Your task to perform on an android device: turn pop-ups off in chrome Image 0: 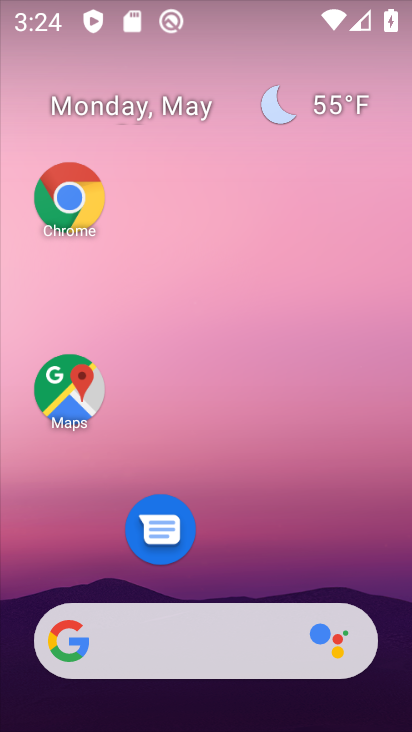
Step 0: click (83, 570)
Your task to perform on an android device: turn pop-ups off in chrome Image 1: 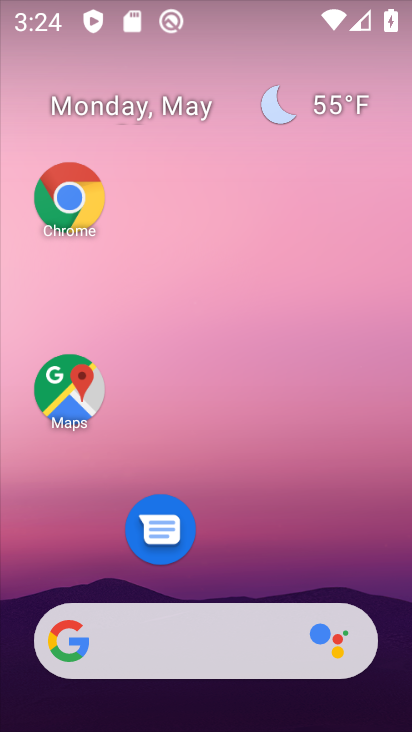
Step 1: drag from (345, 547) to (378, 149)
Your task to perform on an android device: turn pop-ups off in chrome Image 2: 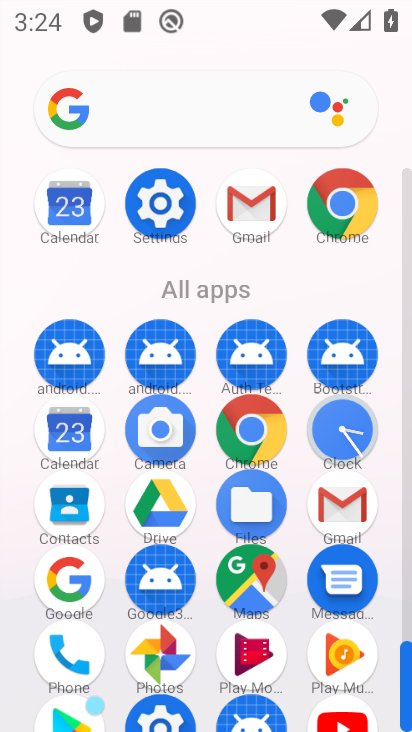
Step 2: click (362, 211)
Your task to perform on an android device: turn pop-ups off in chrome Image 3: 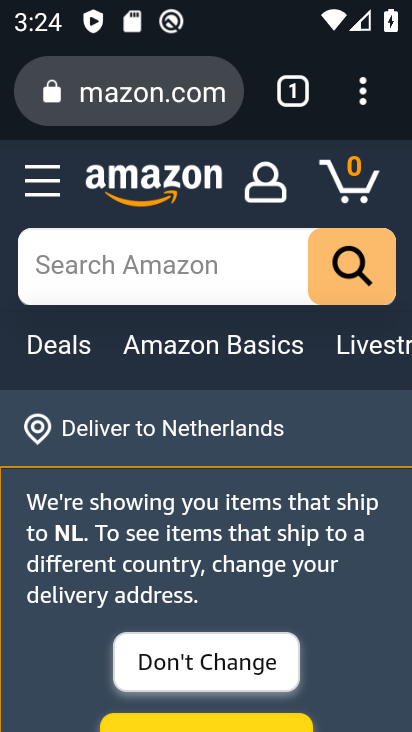
Step 3: click (366, 104)
Your task to perform on an android device: turn pop-ups off in chrome Image 4: 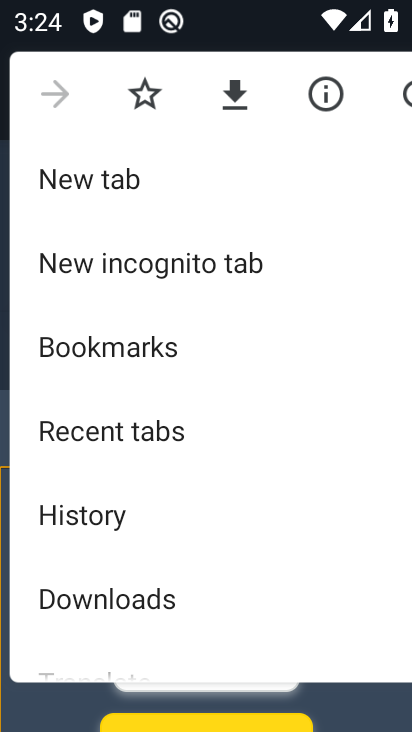
Step 4: drag from (302, 394) to (240, 41)
Your task to perform on an android device: turn pop-ups off in chrome Image 5: 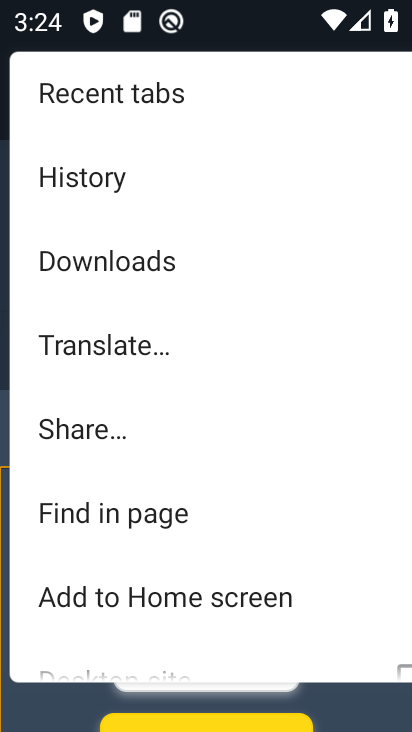
Step 5: drag from (173, 515) to (179, 187)
Your task to perform on an android device: turn pop-ups off in chrome Image 6: 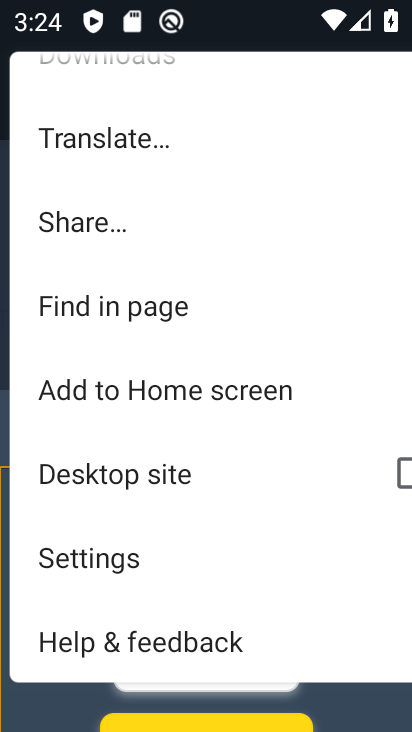
Step 6: click (206, 559)
Your task to perform on an android device: turn pop-ups off in chrome Image 7: 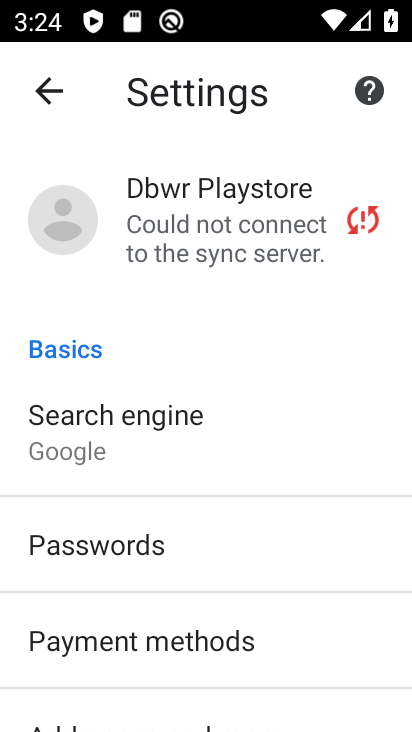
Step 7: drag from (178, 586) to (116, 243)
Your task to perform on an android device: turn pop-ups off in chrome Image 8: 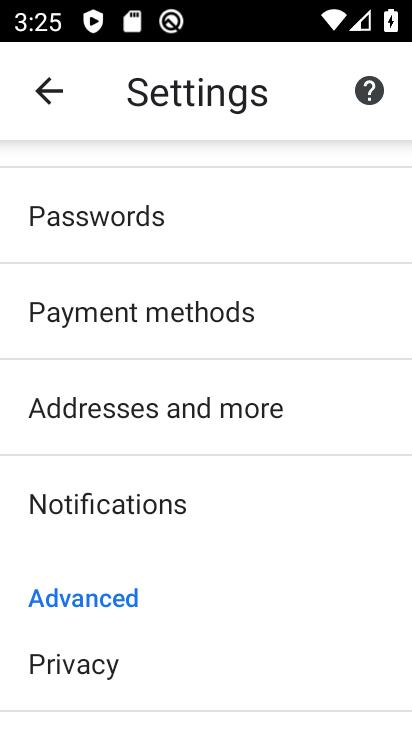
Step 8: drag from (153, 549) to (203, 206)
Your task to perform on an android device: turn pop-ups off in chrome Image 9: 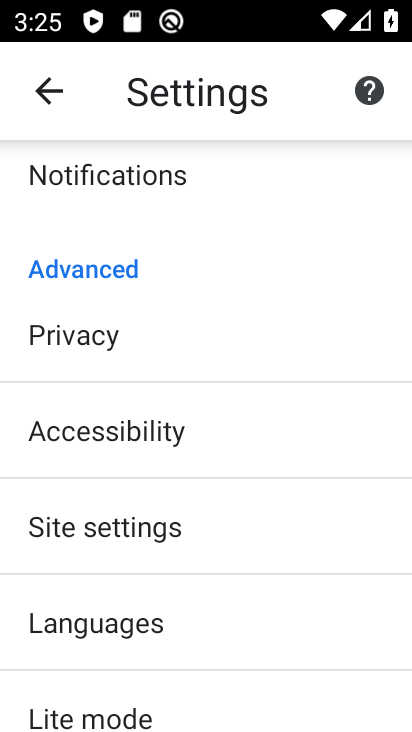
Step 9: click (198, 531)
Your task to perform on an android device: turn pop-ups off in chrome Image 10: 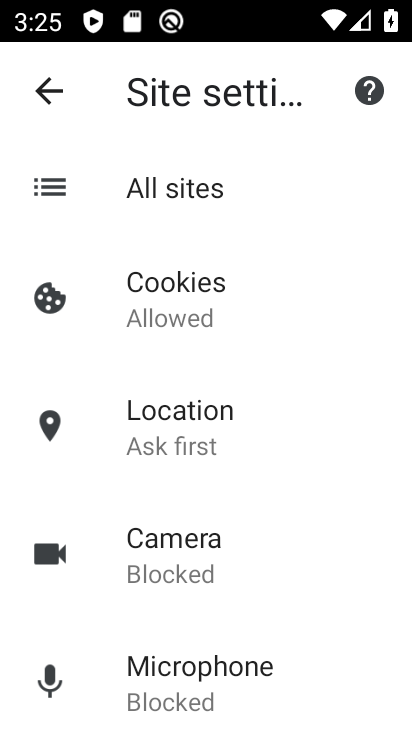
Step 10: drag from (197, 608) to (232, 128)
Your task to perform on an android device: turn pop-ups off in chrome Image 11: 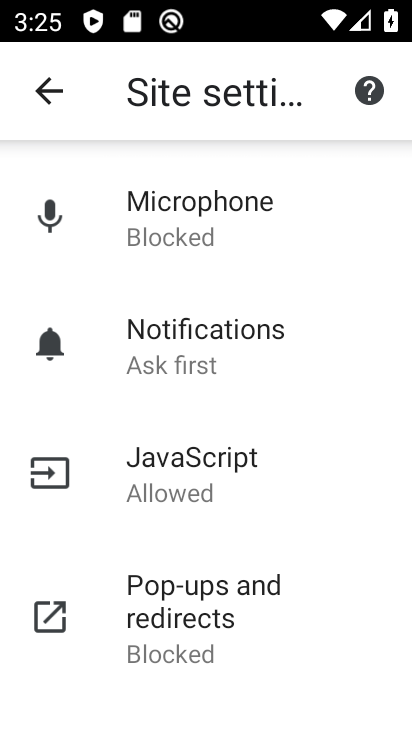
Step 11: click (230, 628)
Your task to perform on an android device: turn pop-ups off in chrome Image 12: 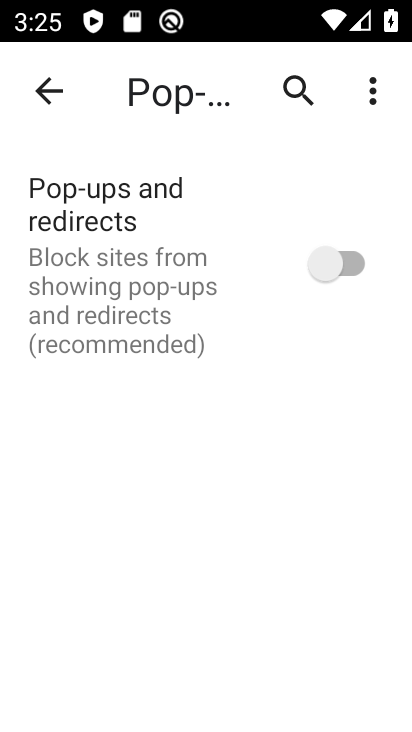
Step 12: task complete